Your task to perform on an android device: open sync settings in chrome Image 0: 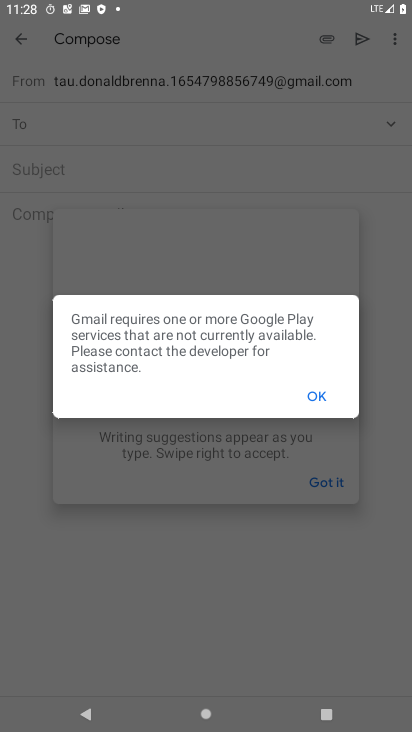
Step 0: press home button
Your task to perform on an android device: open sync settings in chrome Image 1: 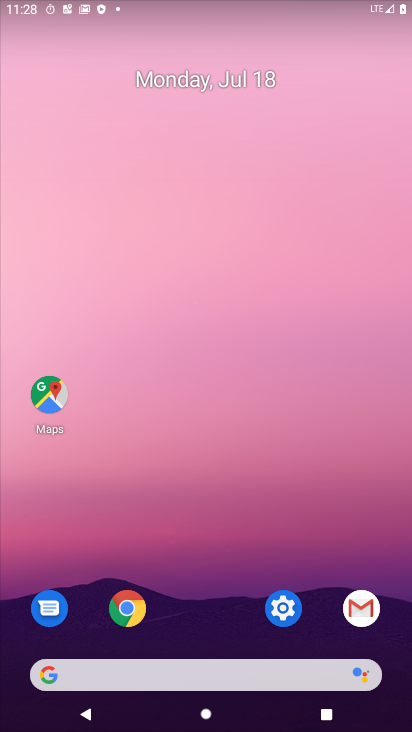
Step 1: drag from (259, 678) to (276, 241)
Your task to perform on an android device: open sync settings in chrome Image 2: 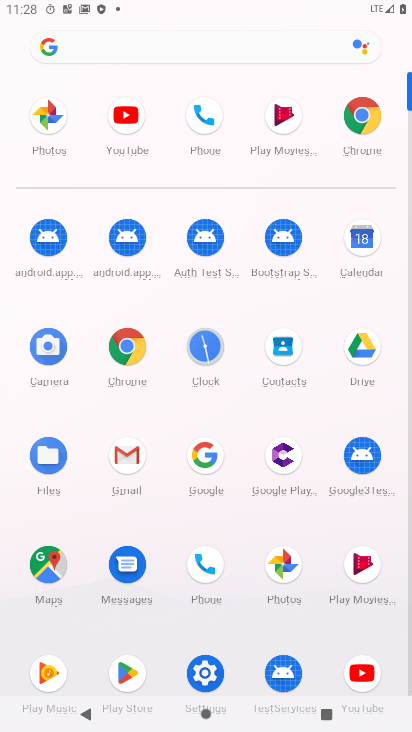
Step 2: click (352, 134)
Your task to perform on an android device: open sync settings in chrome Image 3: 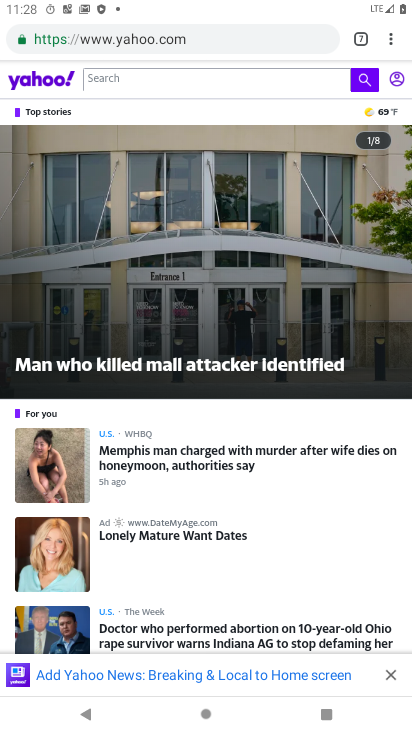
Step 3: click (387, 36)
Your task to perform on an android device: open sync settings in chrome Image 4: 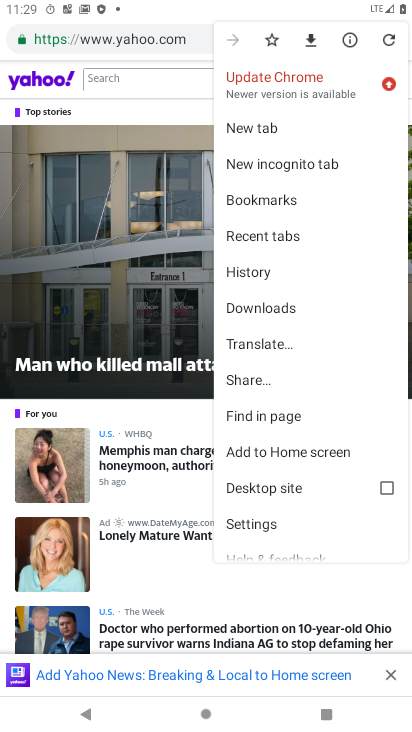
Step 4: click (249, 523)
Your task to perform on an android device: open sync settings in chrome Image 5: 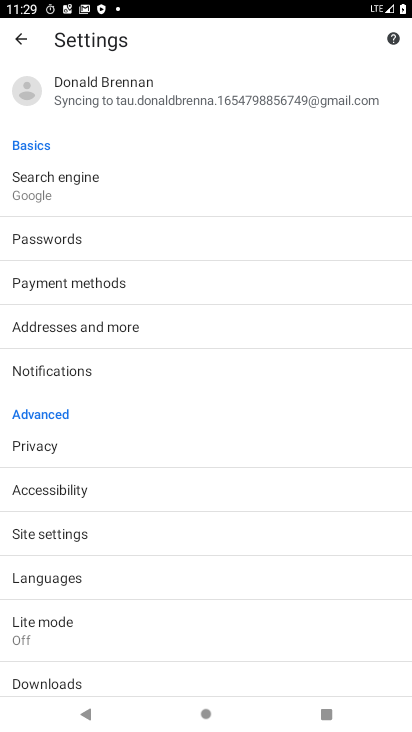
Step 5: click (53, 533)
Your task to perform on an android device: open sync settings in chrome Image 6: 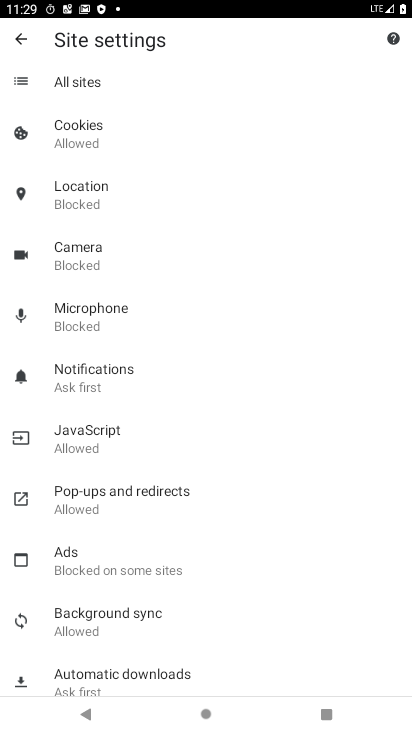
Step 6: click (165, 618)
Your task to perform on an android device: open sync settings in chrome Image 7: 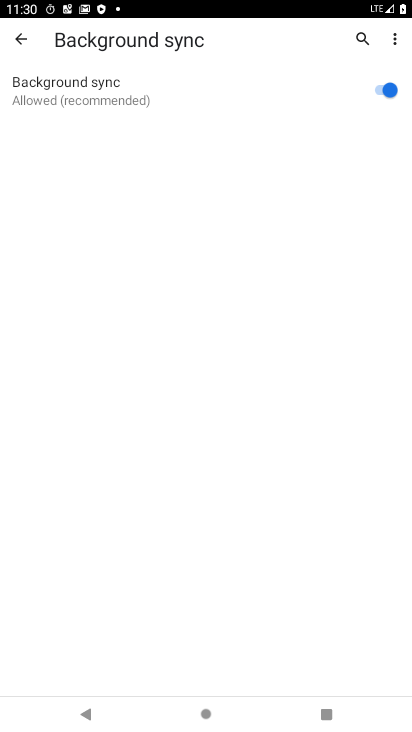
Step 7: task complete